Your task to perform on an android device: open chrome privacy settings Image 0: 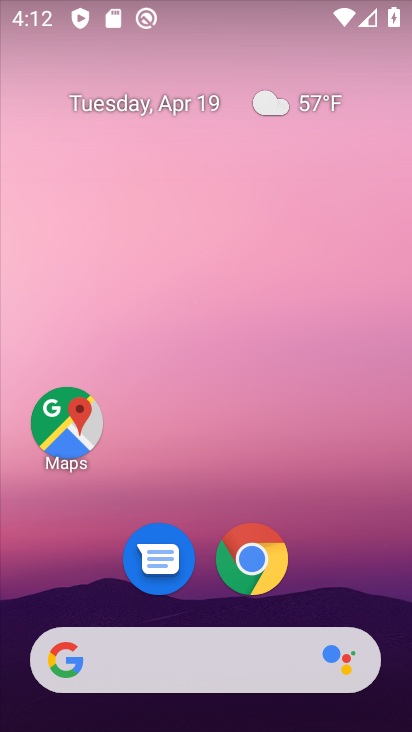
Step 0: click (246, 570)
Your task to perform on an android device: open chrome privacy settings Image 1: 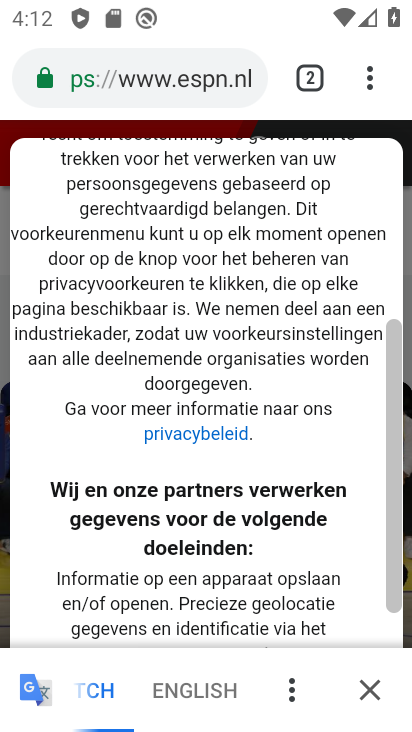
Step 1: press home button
Your task to perform on an android device: open chrome privacy settings Image 2: 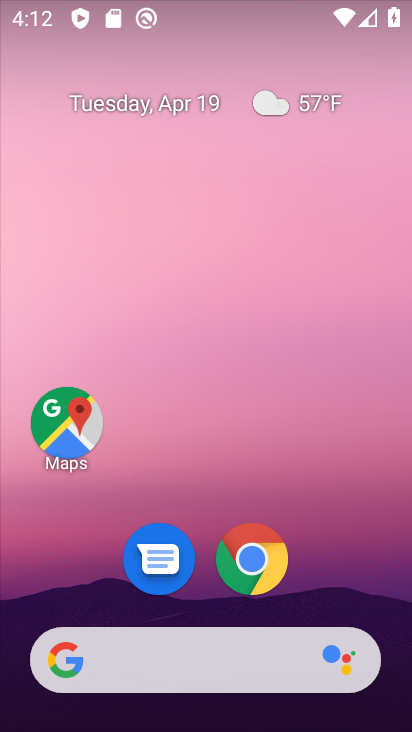
Step 2: click (250, 568)
Your task to perform on an android device: open chrome privacy settings Image 3: 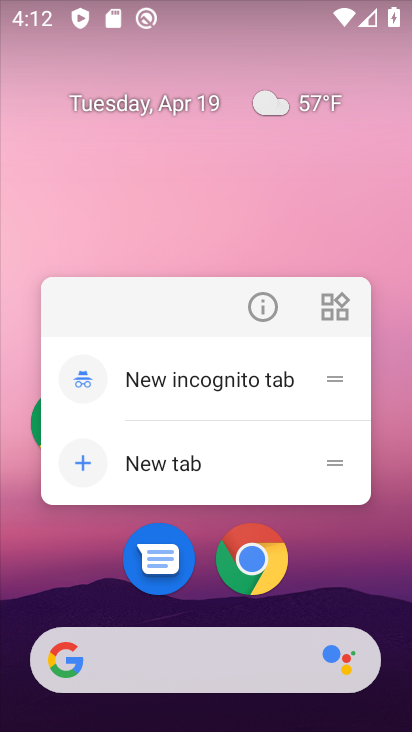
Step 3: click (250, 568)
Your task to perform on an android device: open chrome privacy settings Image 4: 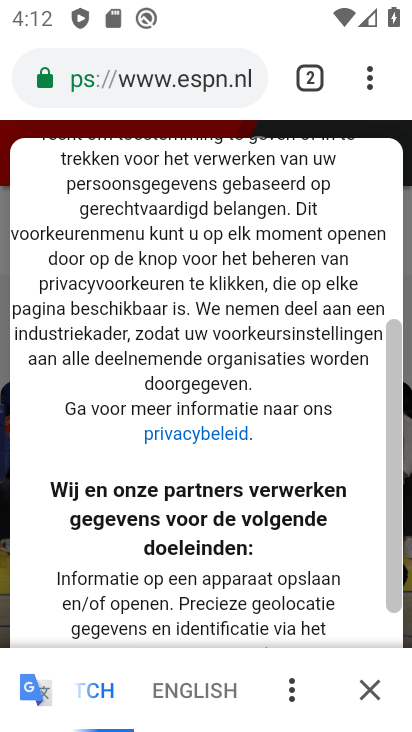
Step 4: click (363, 77)
Your task to perform on an android device: open chrome privacy settings Image 5: 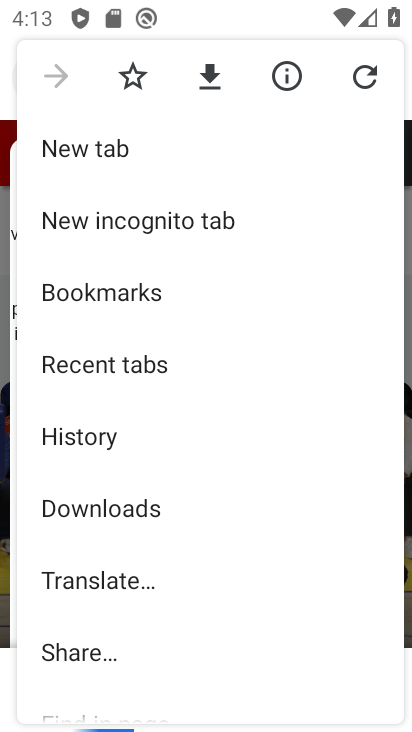
Step 5: drag from (184, 632) to (162, 356)
Your task to perform on an android device: open chrome privacy settings Image 6: 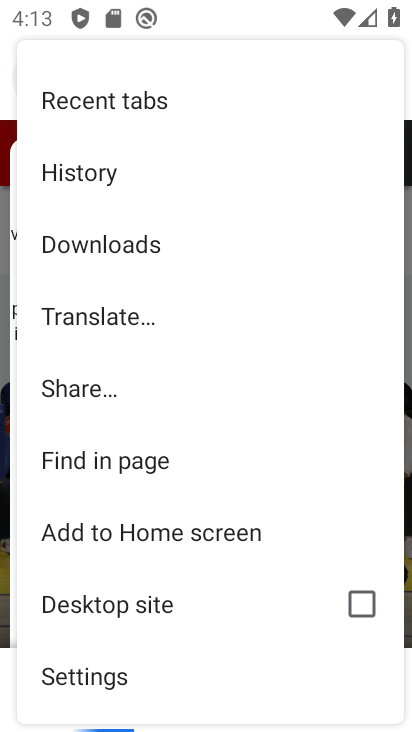
Step 6: click (52, 675)
Your task to perform on an android device: open chrome privacy settings Image 7: 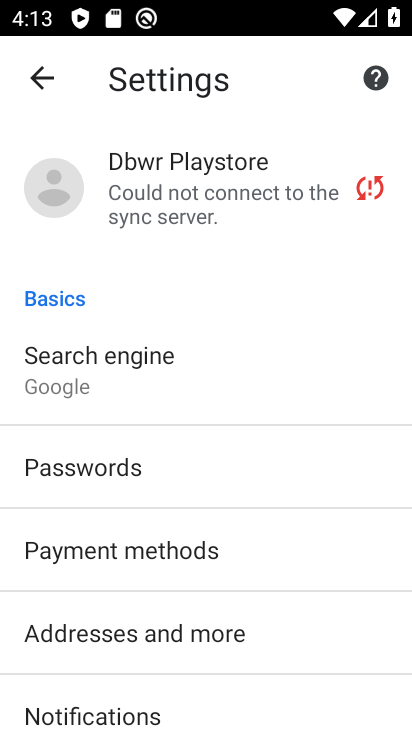
Step 7: drag from (322, 681) to (316, 333)
Your task to perform on an android device: open chrome privacy settings Image 8: 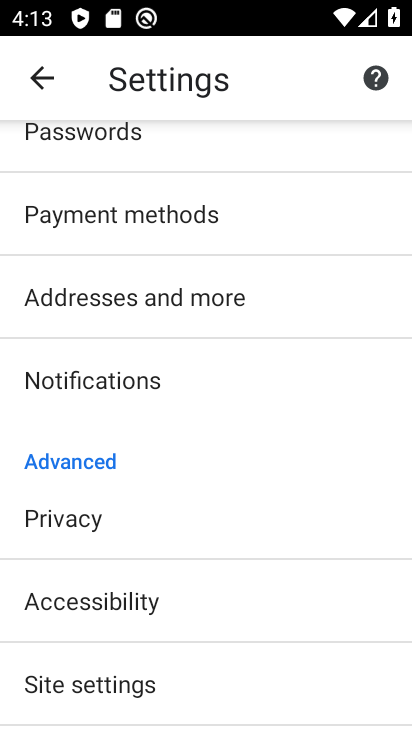
Step 8: click (51, 516)
Your task to perform on an android device: open chrome privacy settings Image 9: 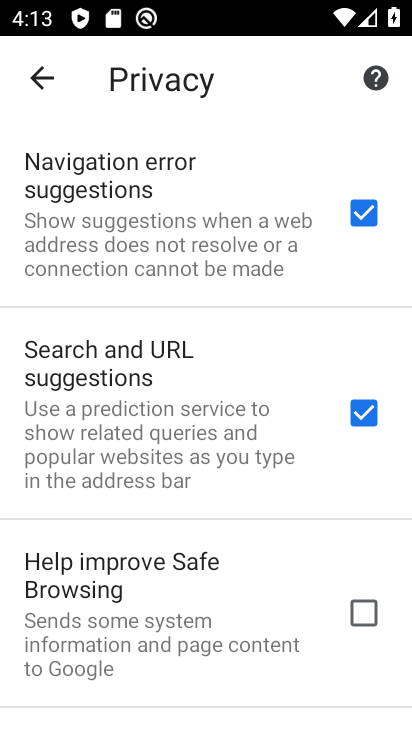
Step 9: task complete